Your task to perform on an android device: Search for sushi restaurants on Maps Image 0: 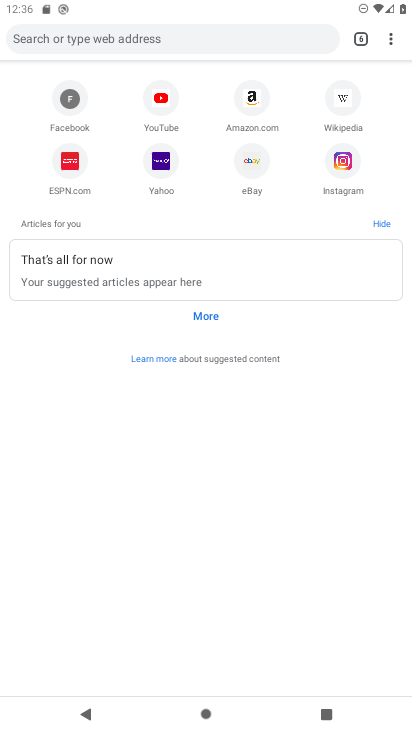
Step 0: press home button
Your task to perform on an android device: Search for sushi restaurants on Maps Image 1: 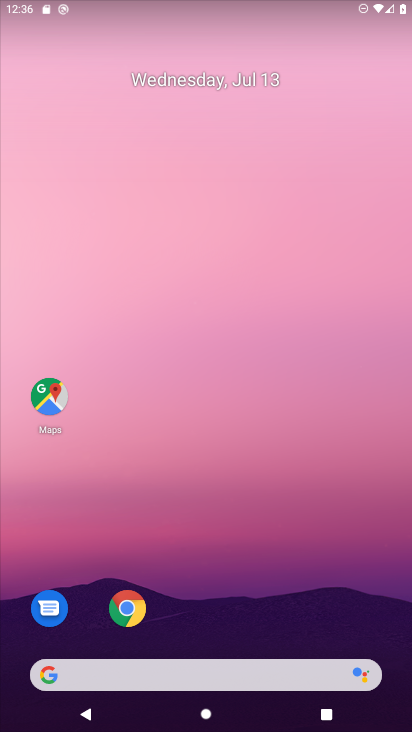
Step 1: click (51, 380)
Your task to perform on an android device: Search for sushi restaurants on Maps Image 2: 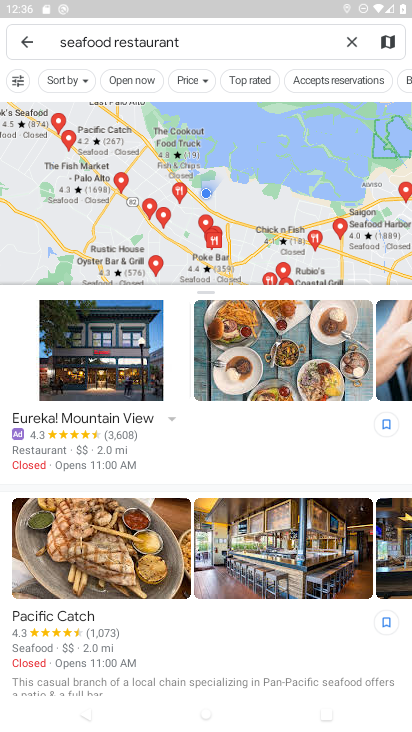
Step 2: click (349, 46)
Your task to perform on an android device: Search for sushi restaurants on Maps Image 3: 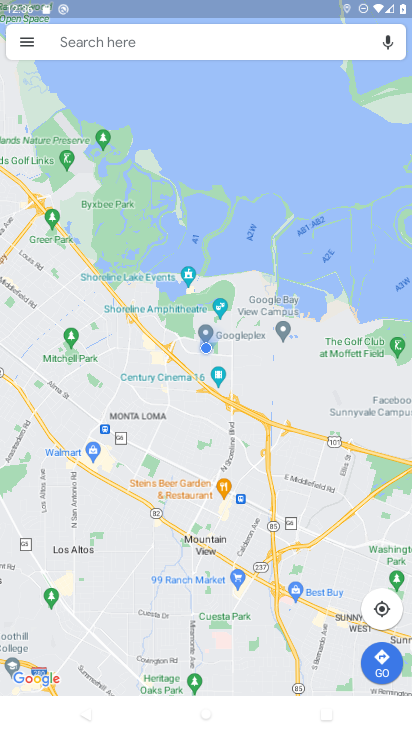
Step 3: click (131, 43)
Your task to perform on an android device: Search for sushi restaurants on Maps Image 4: 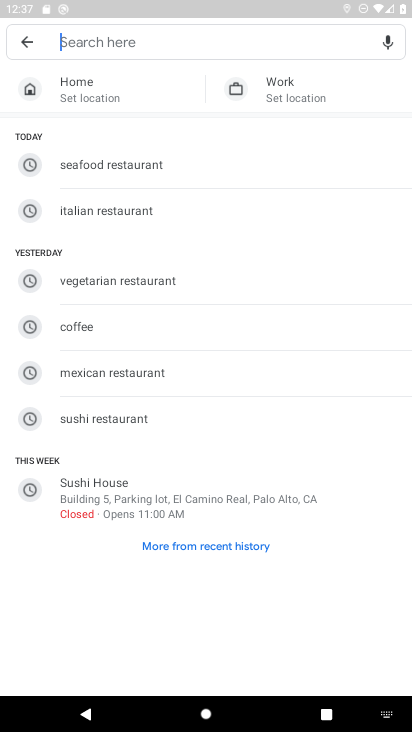
Step 4: click (185, 422)
Your task to perform on an android device: Search for sushi restaurants on Maps Image 5: 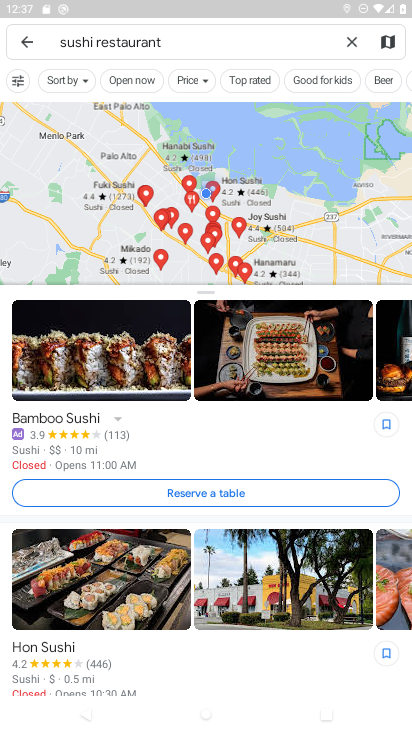
Step 5: task complete